Your task to perform on an android device: open app "ColorNote Notepad Notes" Image 0: 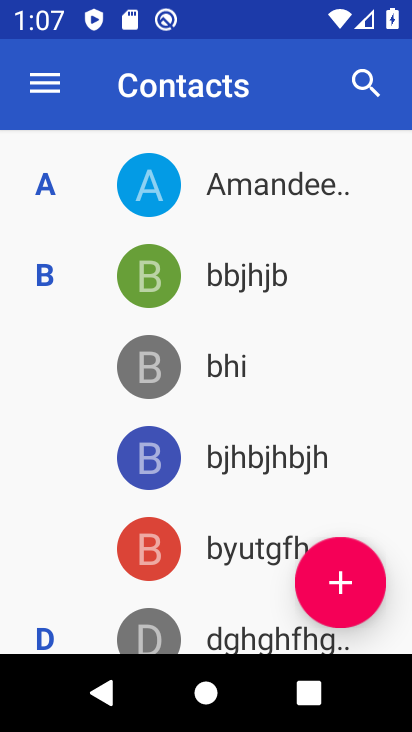
Step 0: press home button
Your task to perform on an android device: open app "ColorNote Notepad Notes" Image 1: 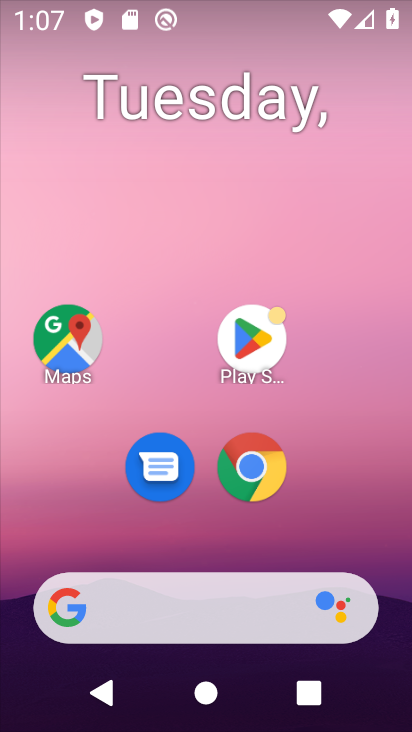
Step 1: click (252, 349)
Your task to perform on an android device: open app "ColorNote Notepad Notes" Image 2: 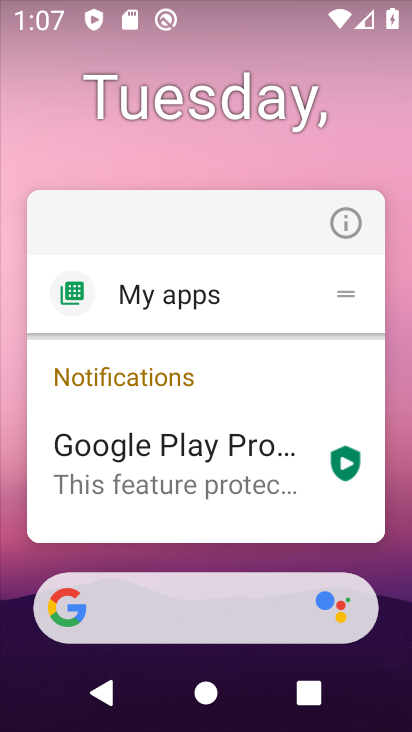
Step 2: click (350, 152)
Your task to perform on an android device: open app "ColorNote Notepad Notes" Image 3: 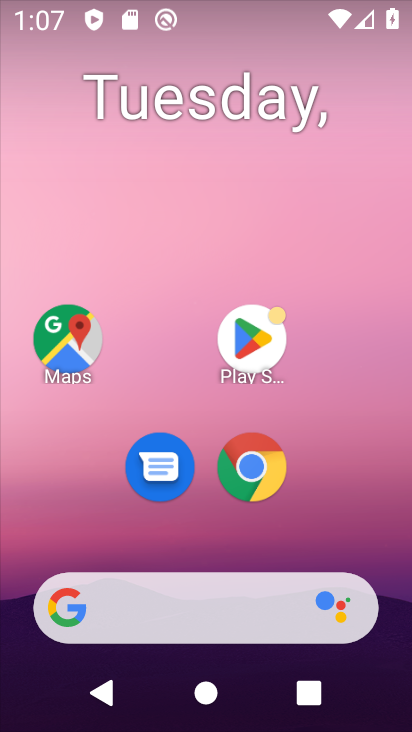
Step 3: click (247, 338)
Your task to perform on an android device: open app "ColorNote Notepad Notes" Image 4: 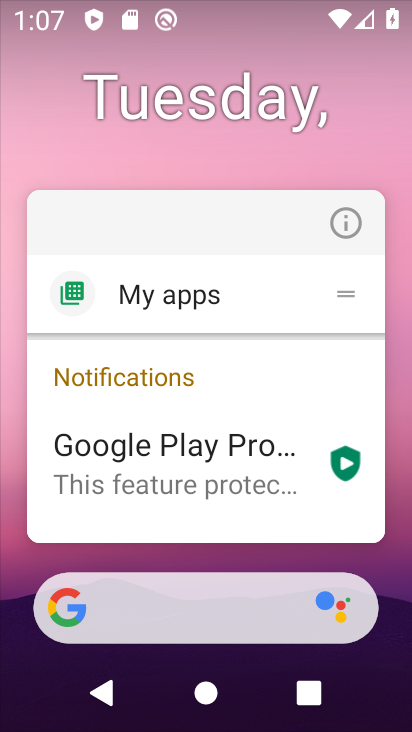
Step 4: click (403, 158)
Your task to perform on an android device: open app "ColorNote Notepad Notes" Image 5: 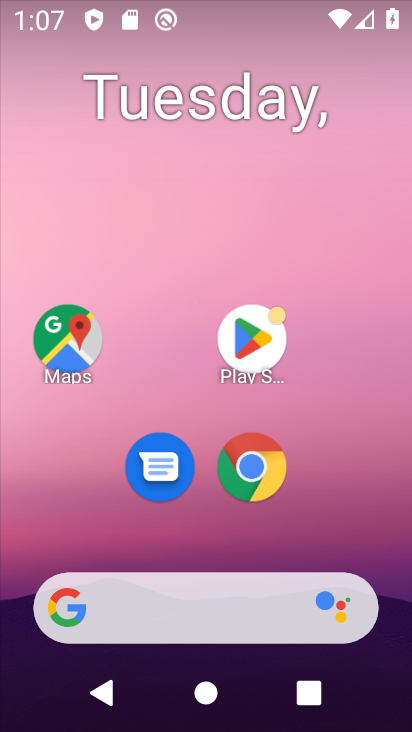
Step 5: click (261, 341)
Your task to perform on an android device: open app "ColorNote Notepad Notes" Image 6: 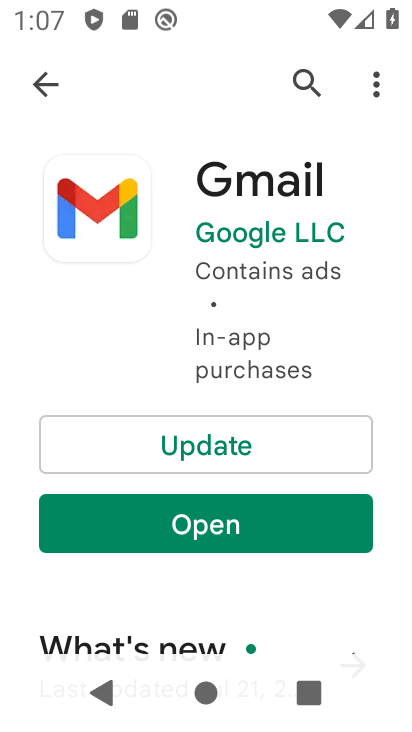
Step 6: click (300, 72)
Your task to perform on an android device: open app "ColorNote Notepad Notes" Image 7: 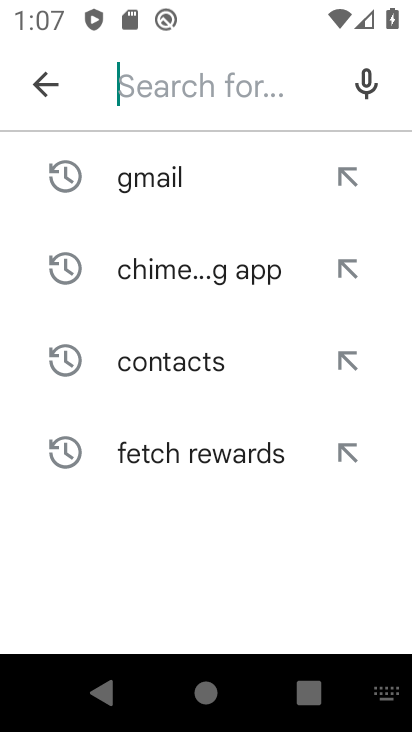
Step 7: type "ColorNote Notepad Notes"
Your task to perform on an android device: open app "ColorNote Notepad Notes" Image 8: 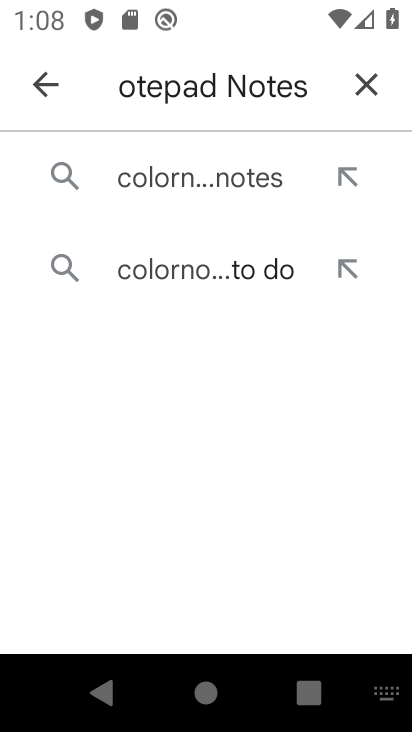
Step 8: click (253, 174)
Your task to perform on an android device: open app "ColorNote Notepad Notes" Image 9: 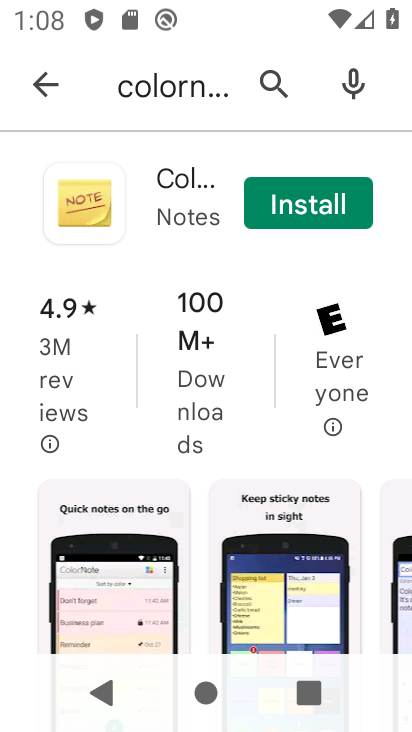
Step 9: task complete